Your task to perform on an android device: clear history in the chrome app Image 0: 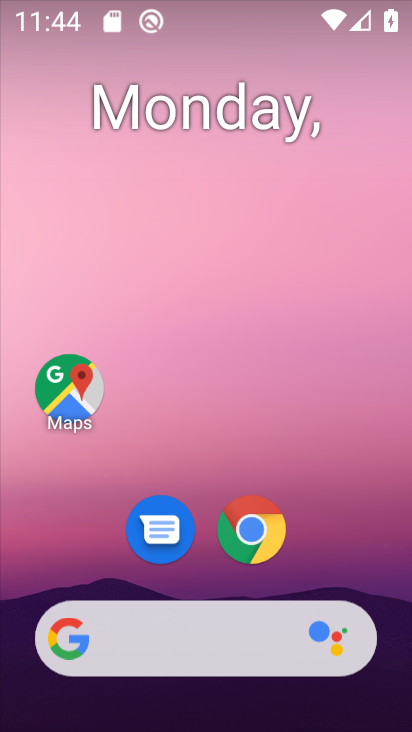
Step 0: drag from (391, 591) to (391, 199)
Your task to perform on an android device: clear history in the chrome app Image 1: 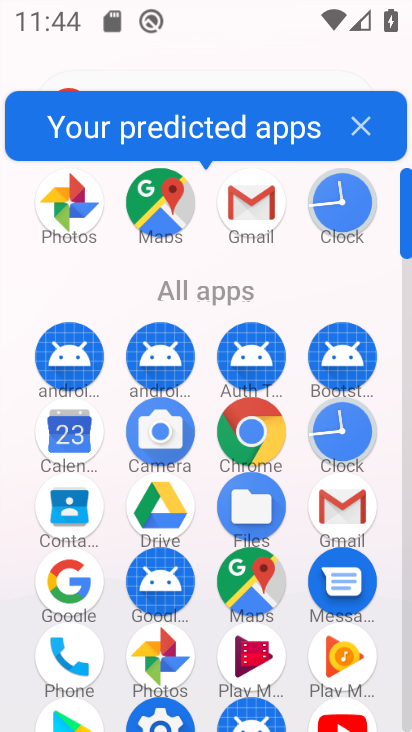
Step 1: drag from (387, 624) to (391, 340)
Your task to perform on an android device: clear history in the chrome app Image 2: 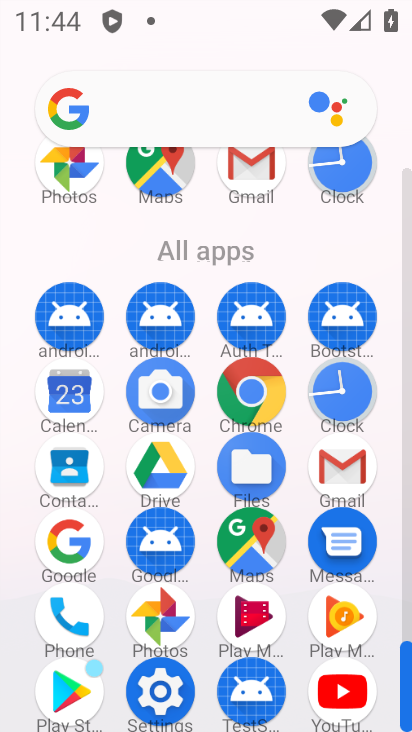
Step 2: click (243, 388)
Your task to perform on an android device: clear history in the chrome app Image 3: 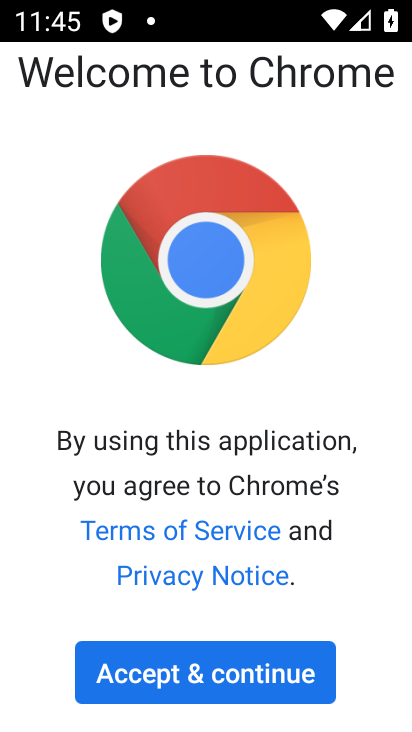
Step 3: click (316, 683)
Your task to perform on an android device: clear history in the chrome app Image 4: 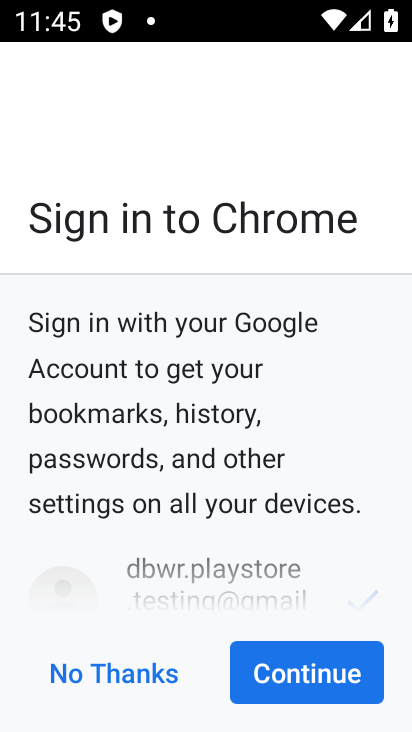
Step 4: click (342, 676)
Your task to perform on an android device: clear history in the chrome app Image 5: 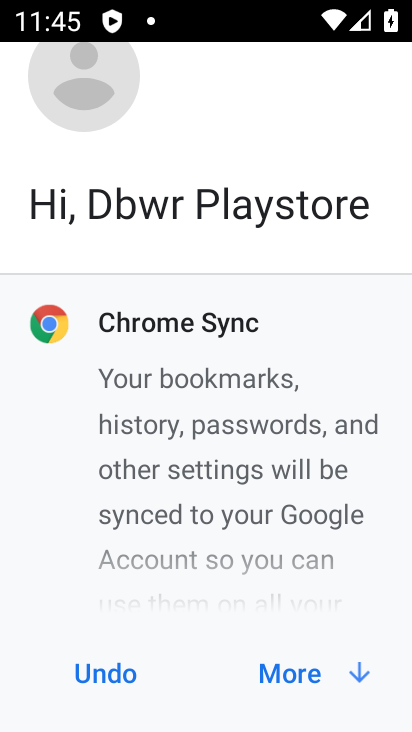
Step 5: click (300, 676)
Your task to perform on an android device: clear history in the chrome app Image 6: 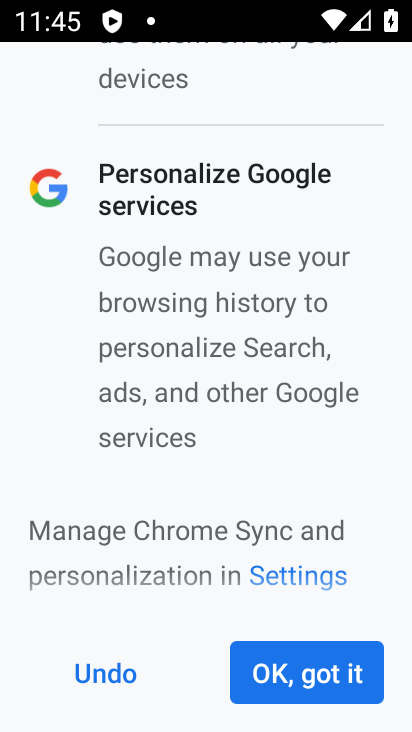
Step 6: click (316, 684)
Your task to perform on an android device: clear history in the chrome app Image 7: 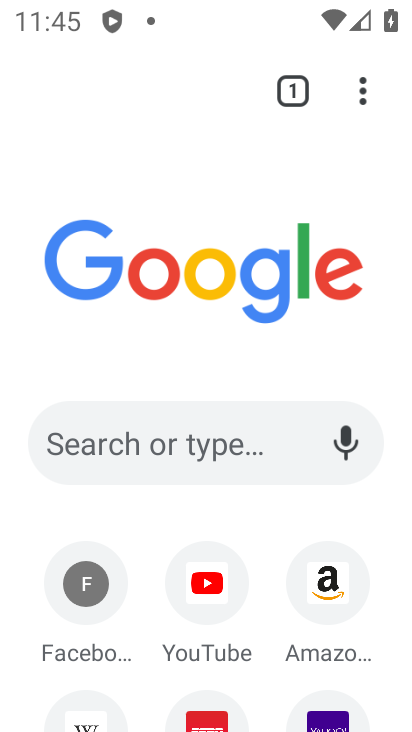
Step 7: click (364, 98)
Your task to perform on an android device: clear history in the chrome app Image 8: 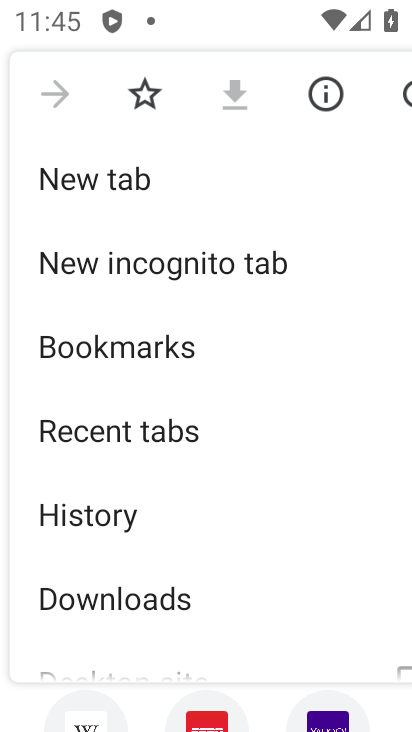
Step 8: drag from (330, 440) to (355, 230)
Your task to perform on an android device: clear history in the chrome app Image 9: 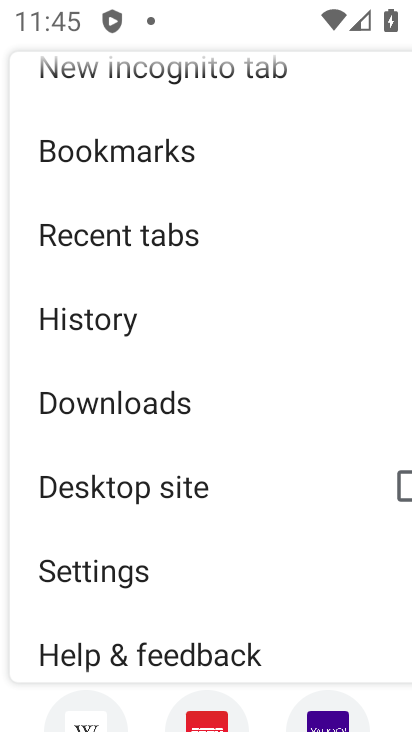
Step 9: drag from (272, 574) to (296, 369)
Your task to perform on an android device: clear history in the chrome app Image 10: 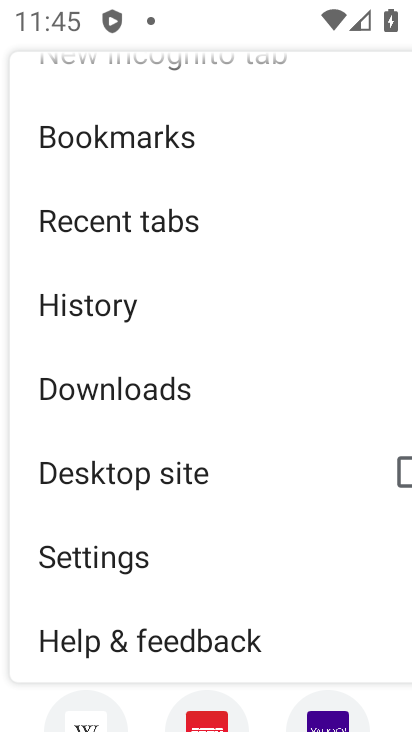
Step 10: click (139, 324)
Your task to perform on an android device: clear history in the chrome app Image 11: 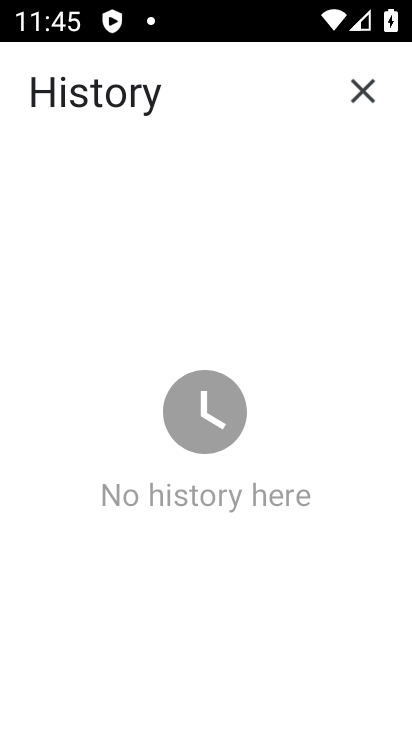
Step 11: task complete